Your task to perform on an android device: change keyboard looks Image 0: 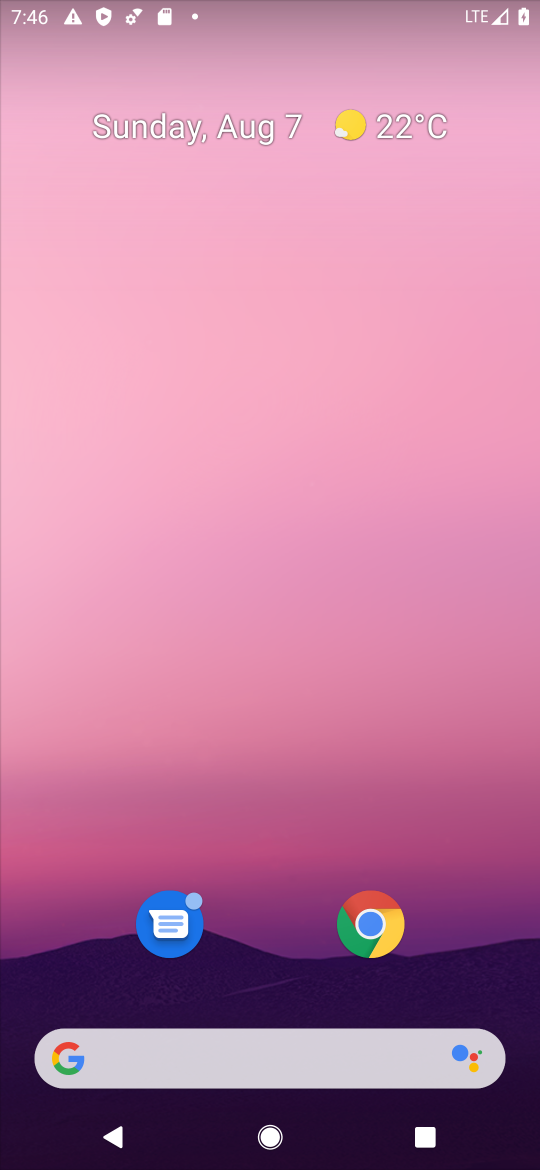
Step 0: drag from (270, 920) to (298, 0)
Your task to perform on an android device: change keyboard looks Image 1: 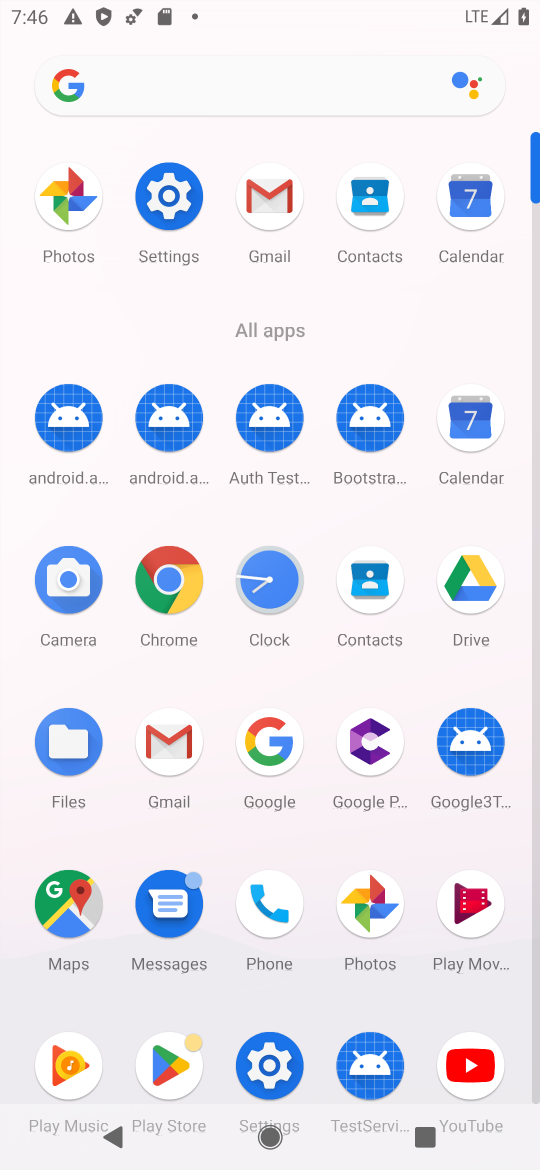
Step 1: click (174, 188)
Your task to perform on an android device: change keyboard looks Image 2: 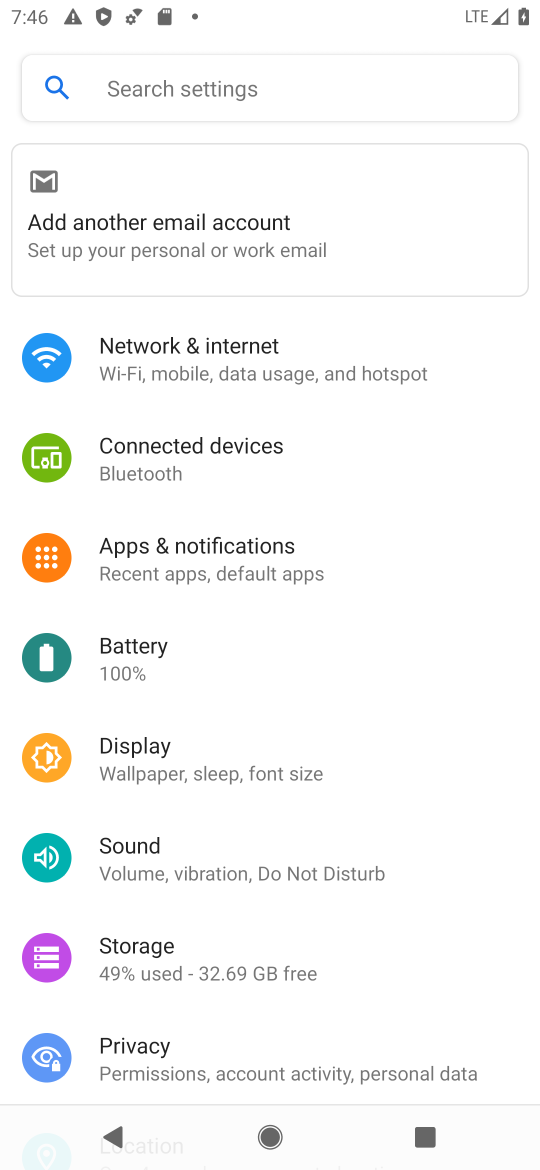
Step 2: drag from (216, 1002) to (329, 0)
Your task to perform on an android device: change keyboard looks Image 3: 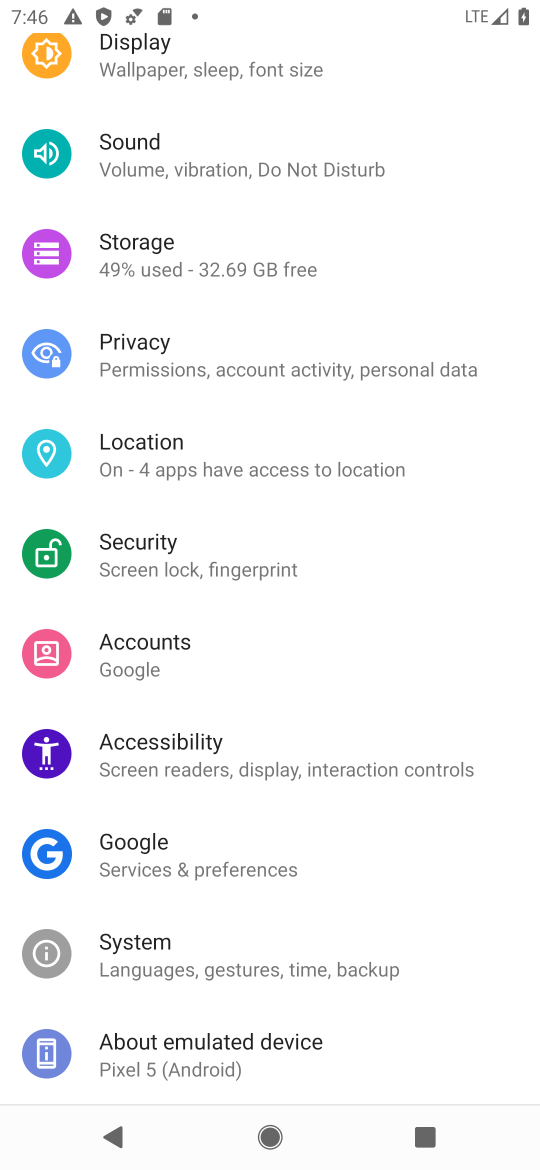
Step 3: click (219, 957)
Your task to perform on an android device: change keyboard looks Image 4: 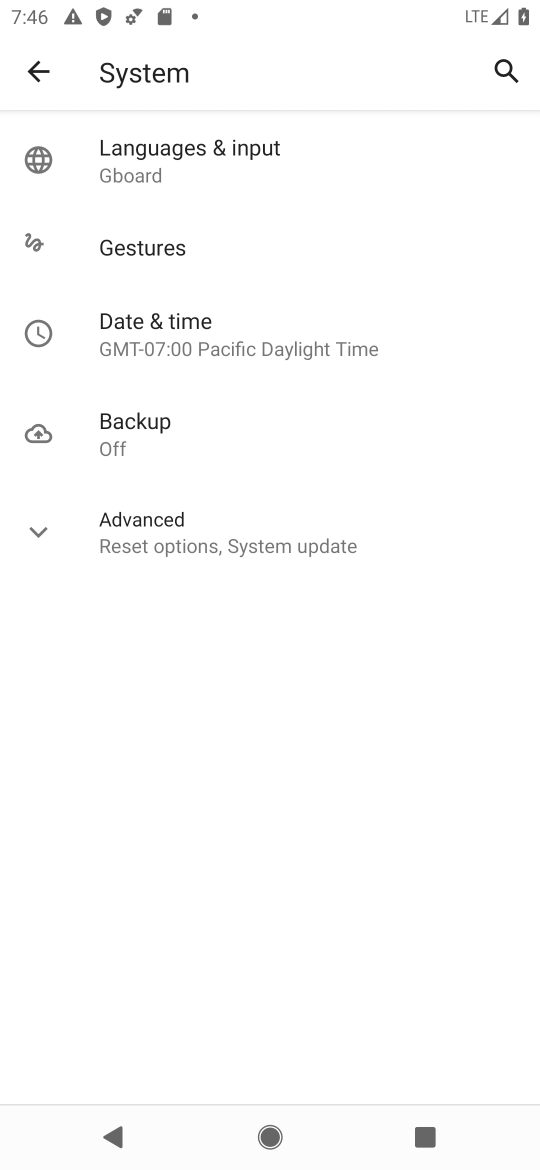
Step 4: click (231, 140)
Your task to perform on an android device: change keyboard looks Image 5: 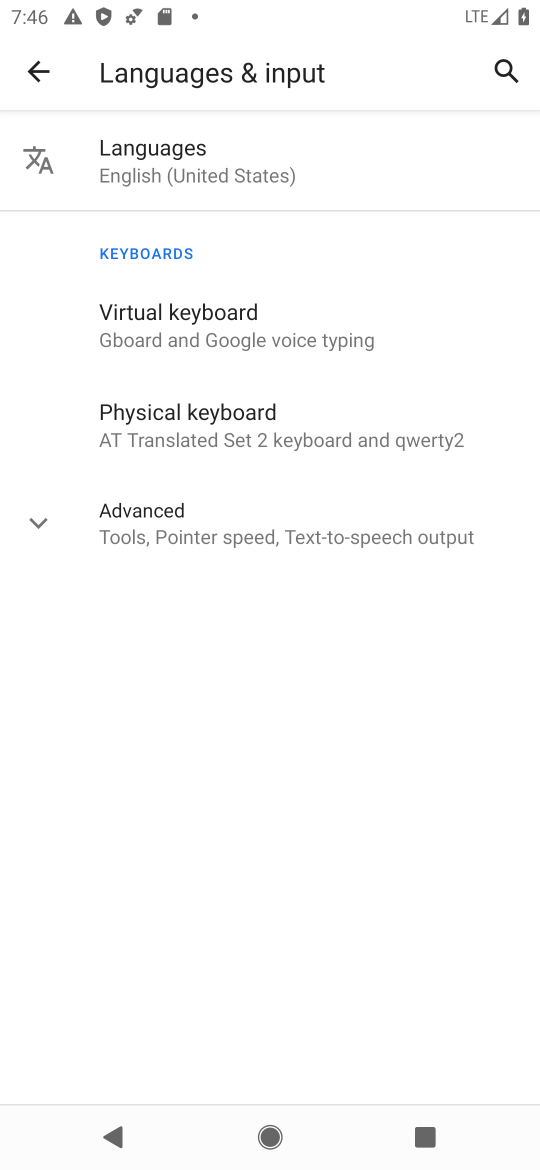
Step 5: click (203, 313)
Your task to perform on an android device: change keyboard looks Image 6: 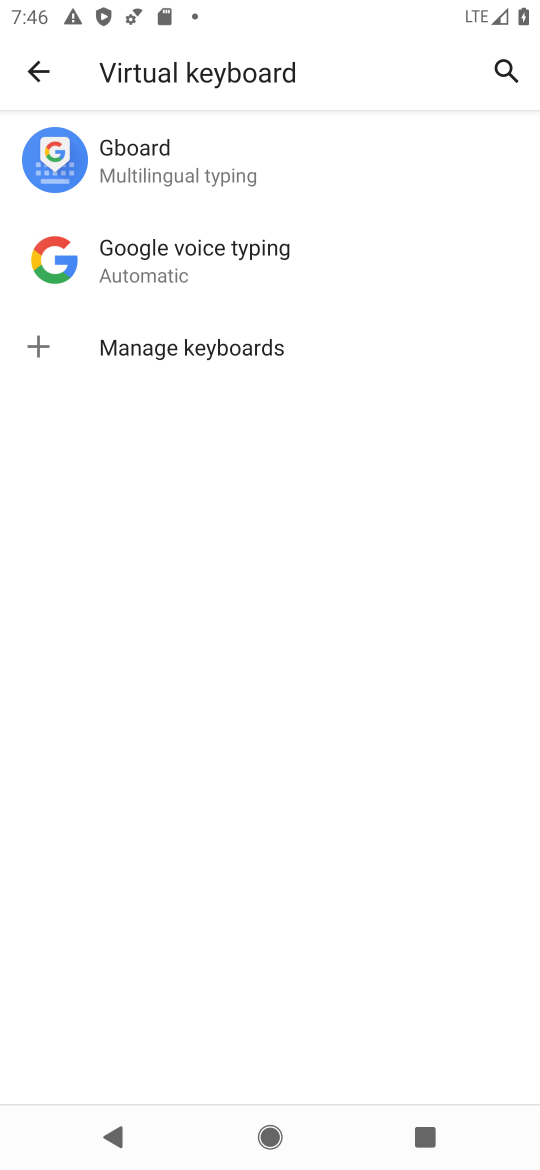
Step 6: click (184, 162)
Your task to perform on an android device: change keyboard looks Image 7: 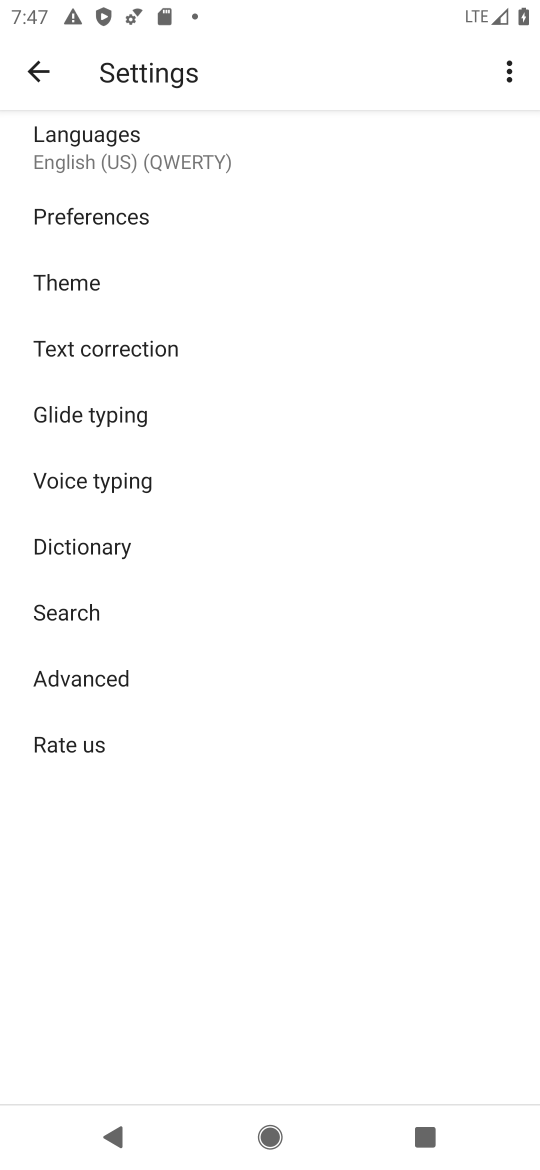
Step 7: click (184, 170)
Your task to perform on an android device: change keyboard looks Image 8: 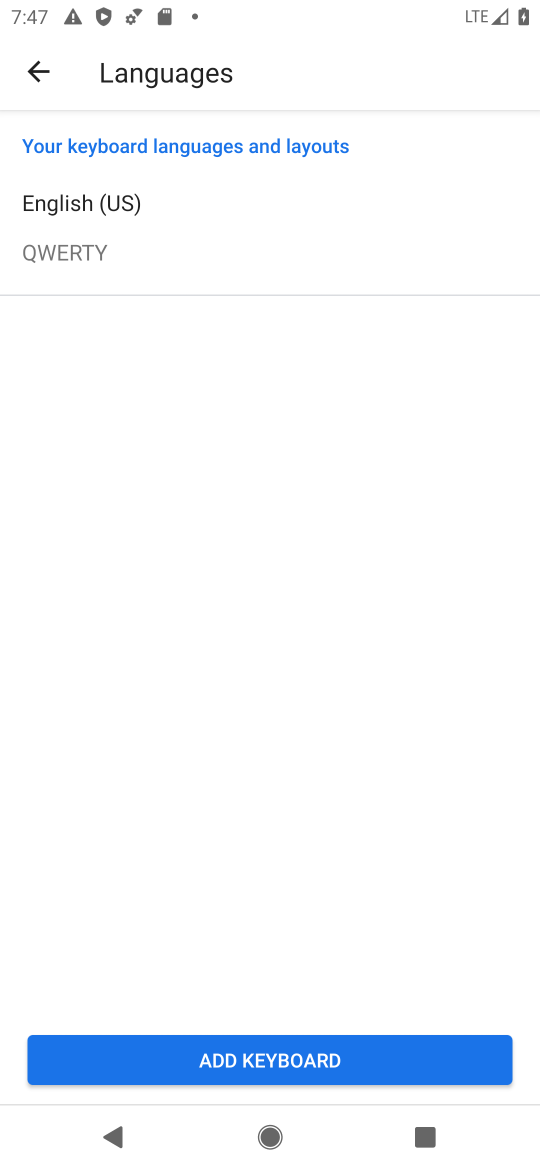
Step 8: click (36, 66)
Your task to perform on an android device: change keyboard looks Image 9: 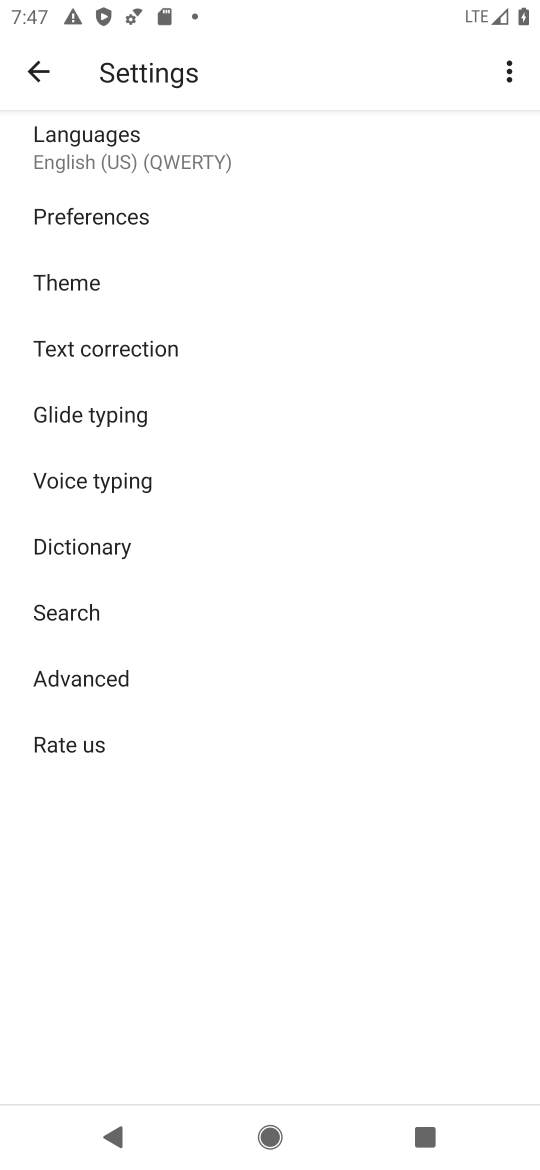
Step 9: click (76, 283)
Your task to perform on an android device: change keyboard looks Image 10: 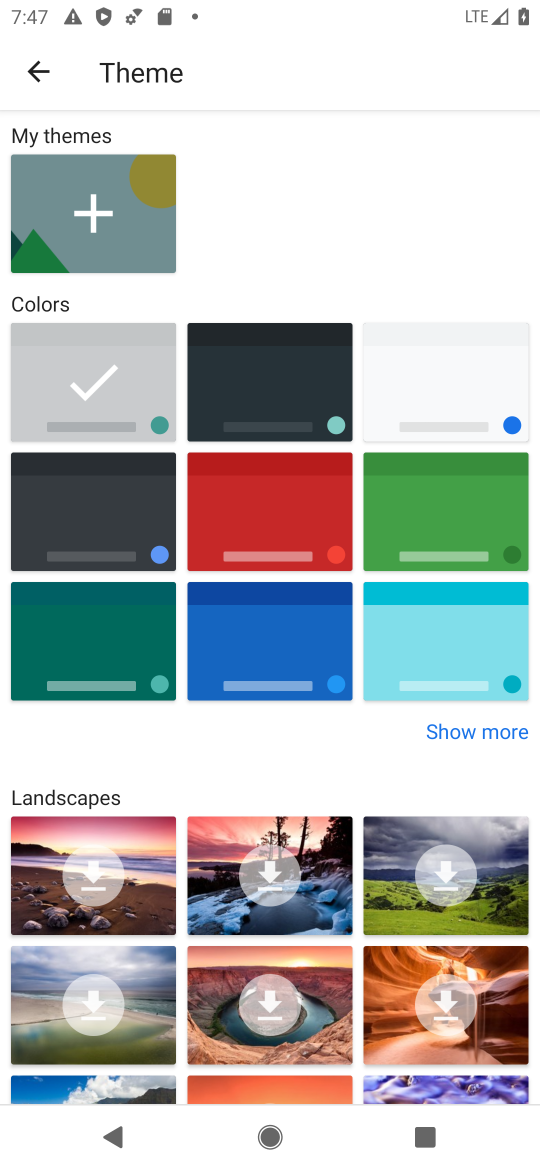
Step 10: click (245, 368)
Your task to perform on an android device: change keyboard looks Image 11: 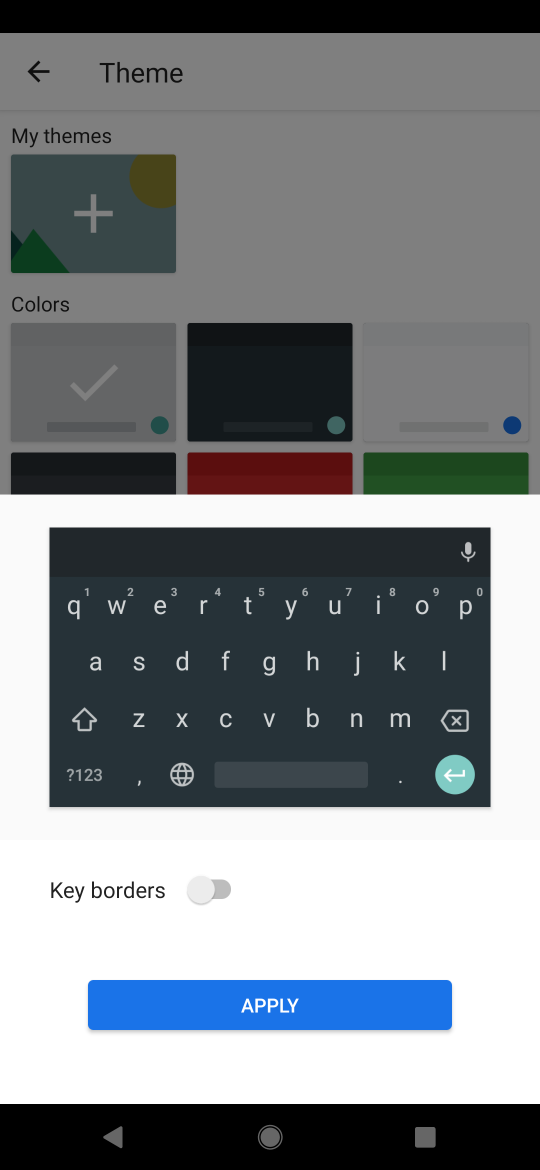
Step 11: click (214, 880)
Your task to perform on an android device: change keyboard looks Image 12: 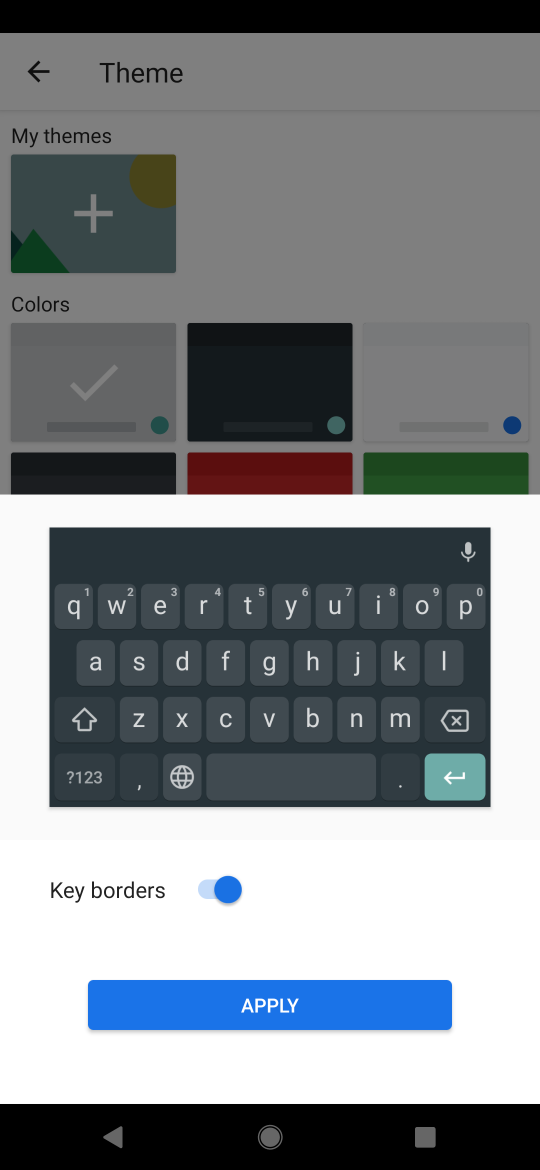
Step 12: click (236, 1000)
Your task to perform on an android device: change keyboard looks Image 13: 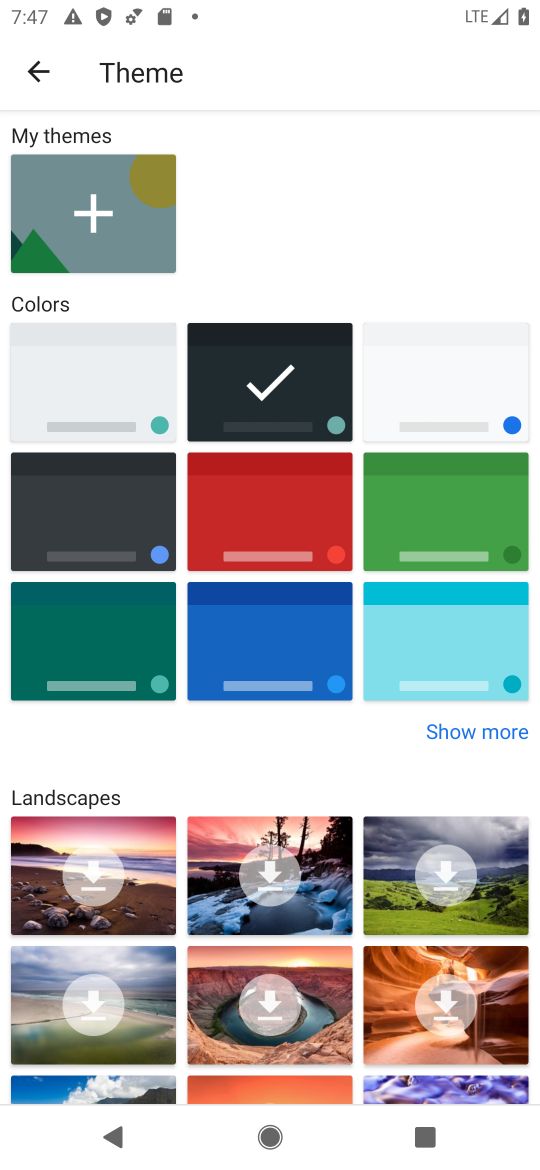
Step 13: task complete